Your task to perform on an android device: Show me recent news Image 0: 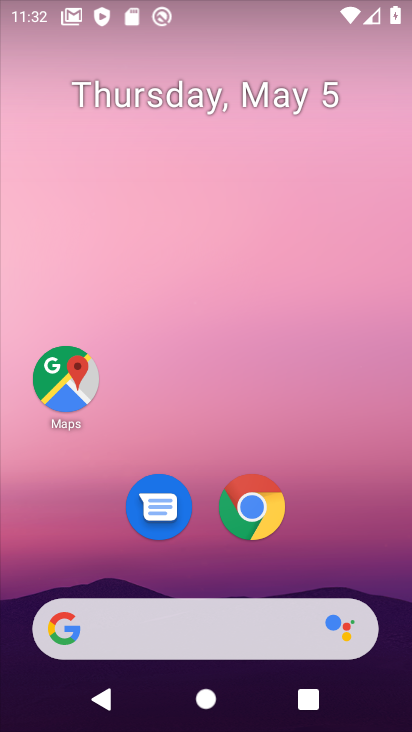
Step 0: drag from (41, 262) to (398, 372)
Your task to perform on an android device: Show me recent news Image 1: 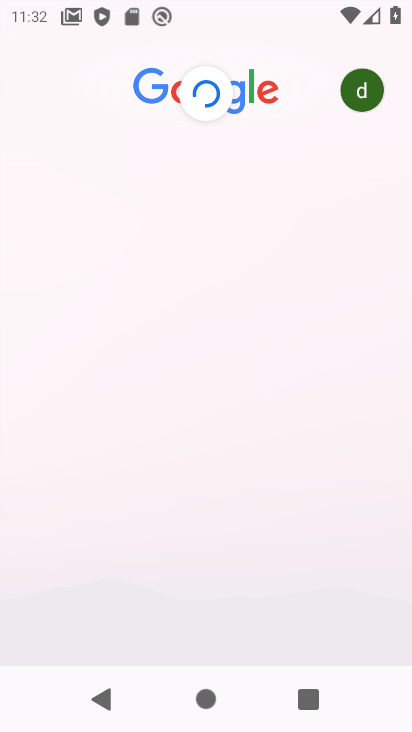
Step 1: task complete